Your task to perform on an android device: Open Wikipedia Image 0: 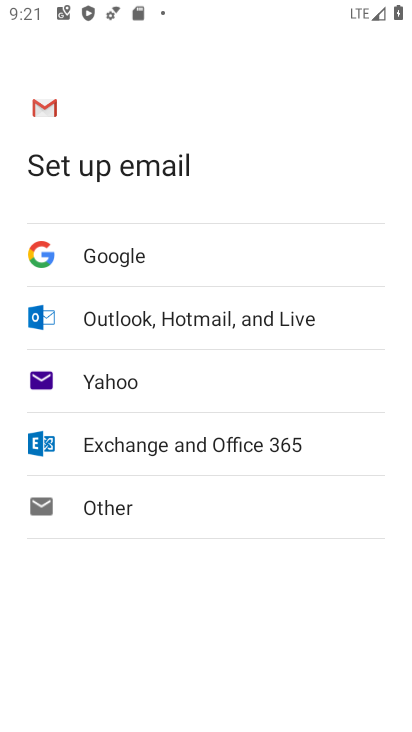
Step 0: press home button
Your task to perform on an android device: Open Wikipedia Image 1: 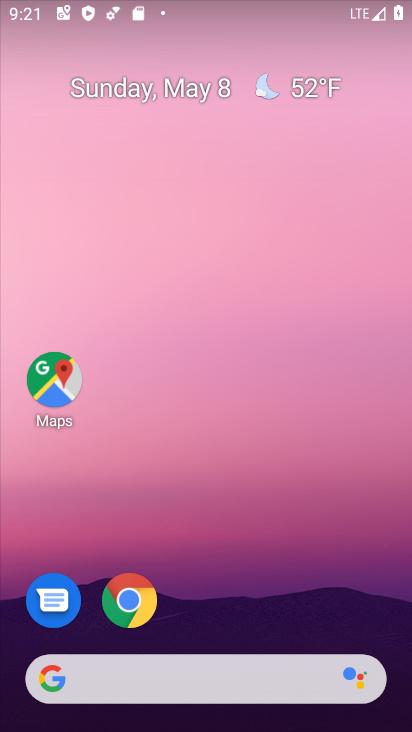
Step 1: click (139, 598)
Your task to perform on an android device: Open Wikipedia Image 2: 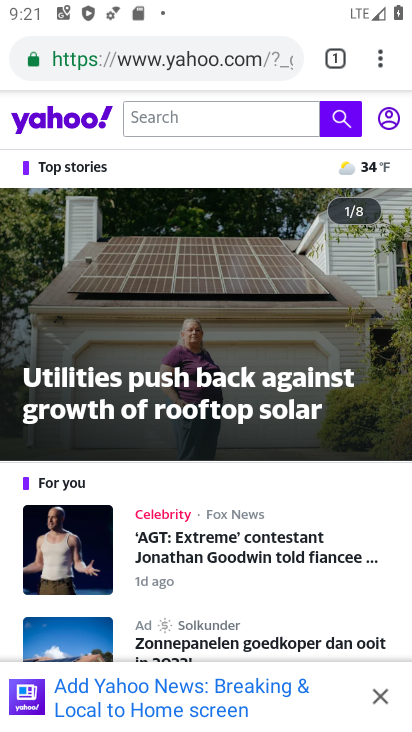
Step 2: click (100, 62)
Your task to perform on an android device: Open Wikipedia Image 3: 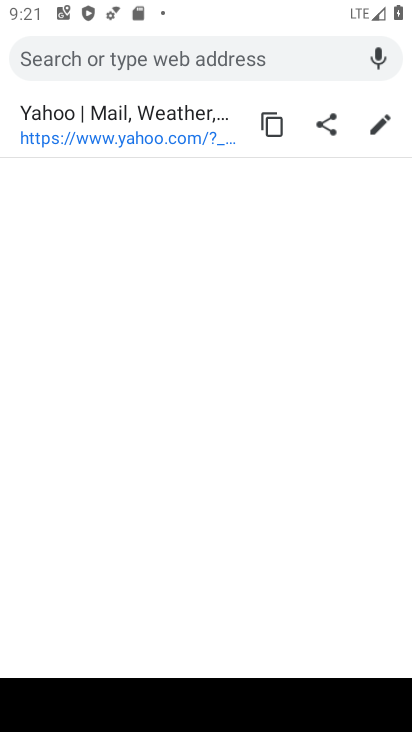
Step 3: type "wikipedia"
Your task to perform on an android device: Open Wikipedia Image 4: 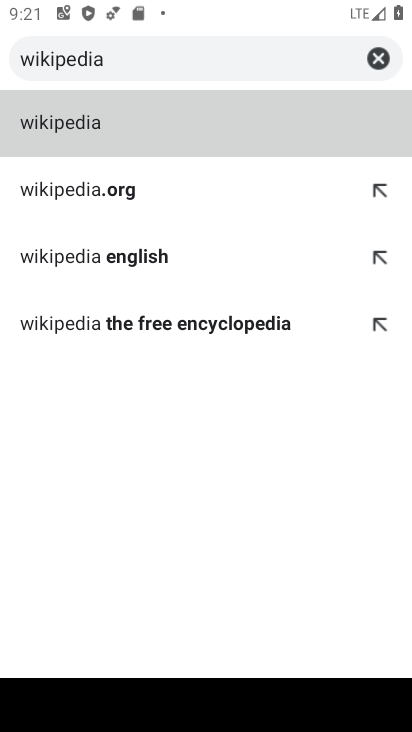
Step 4: click (67, 131)
Your task to perform on an android device: Open Wikipedia Image 5: 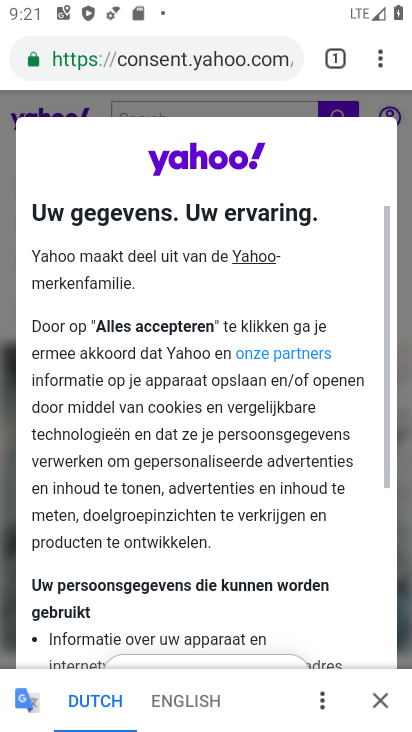
Step 5: click (221, 60)
Your task to perform on an android device: Open Wikipedia Image 6: 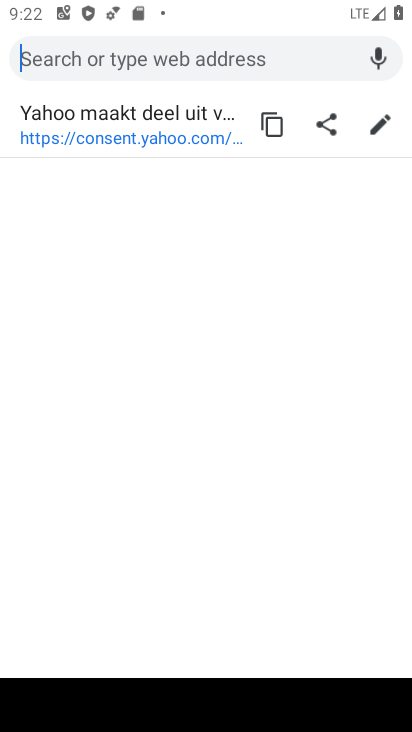
Step 6: type "wikipedia"
Your task to perform on an android device: Open Wikipedia Image 7: 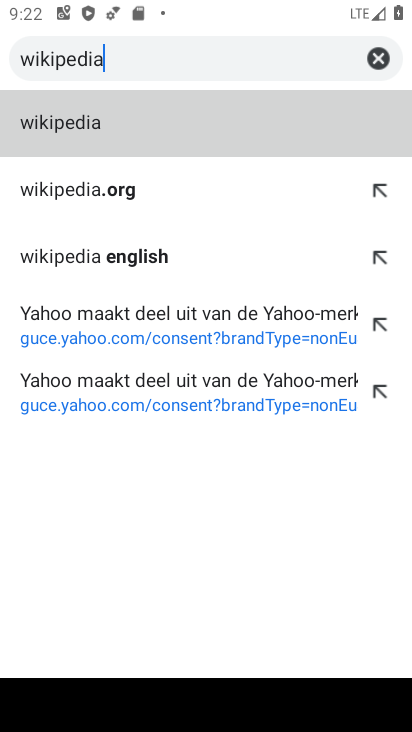
Step 7: click (43, 190)
Your task to perform on an android device: Open Wikipedia Image 8: 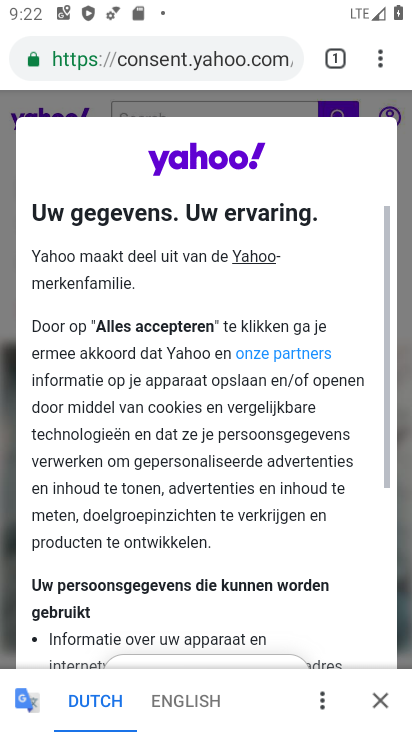
Step 8: task complete